Your task to perform on an android device: Go to eBay Image 0: 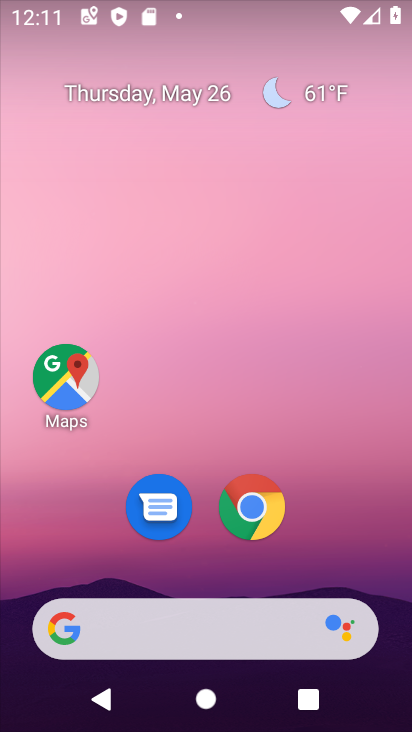
Step 0: drag from (356, 550) to (332, 131)
Your task to perform on an android device: Go to eBay Image 1: 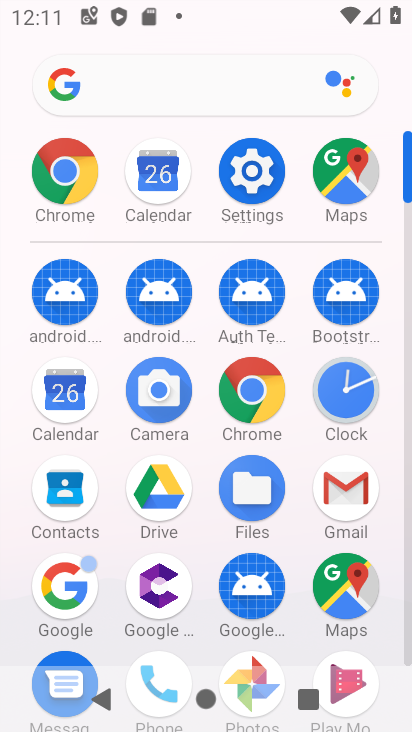
Step 1: click (212, 93)
Your task to perform on an android device: Go to eBay Image 2: 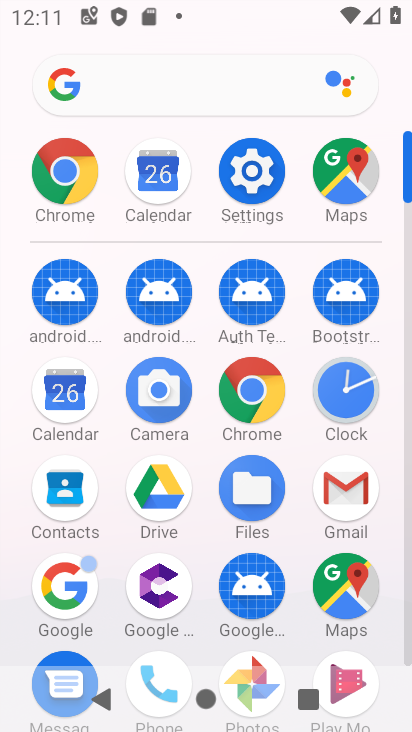
Step 2: click (212, 93)
Your task to perform on an android device: Go to eBay Image 3: 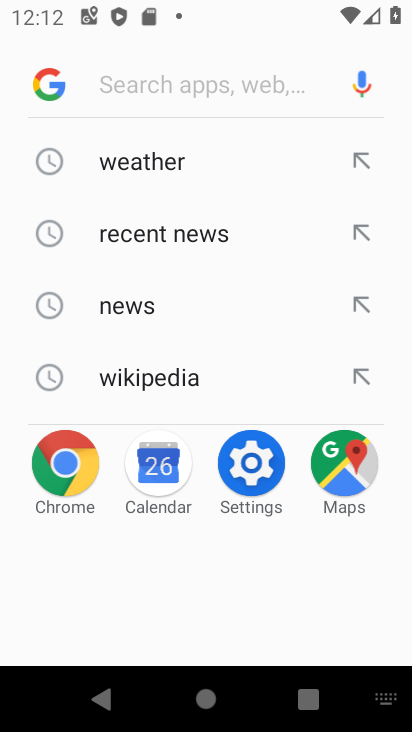
Step 3: type "ebay.com"
Your task to perform on an android device: Go to eBay Image 4: 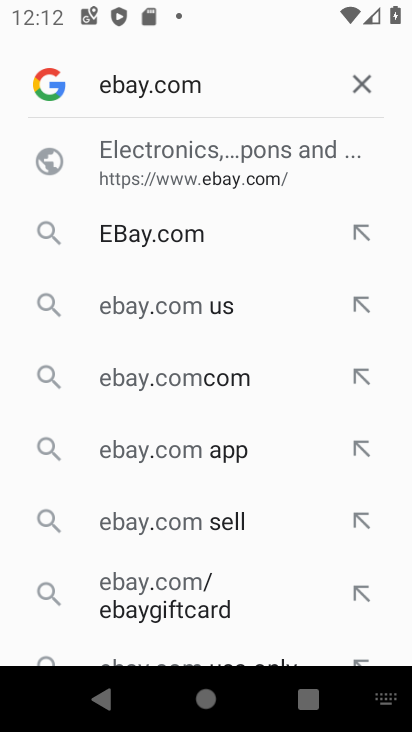
Step 4: click (213, 167)
Your task to perform on an android device: Go to eBay Image 5: 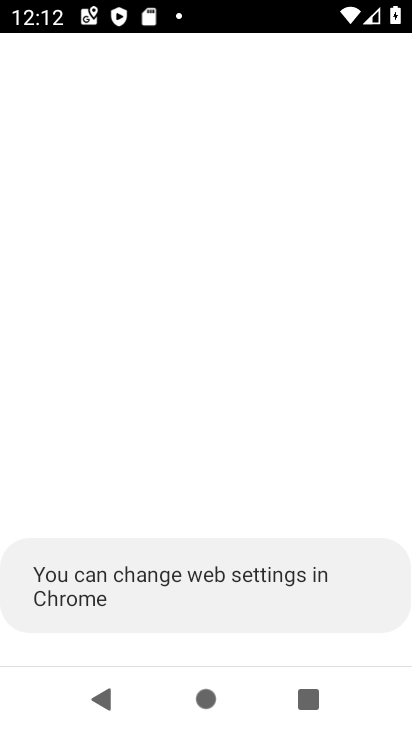
Step 5: task complete